Your task to perform on an android device: Show me the alarms in the clock app Image 0: 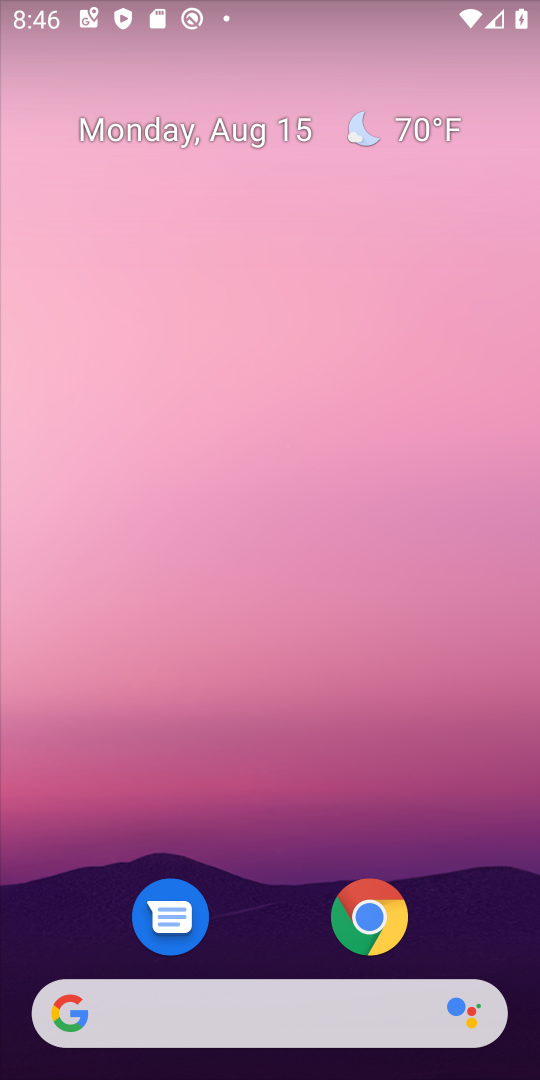
Step 0: drag from (276, 862) to (300, 55)
Your task to perform on an android device: Show me the alarms in the clock app Image 1: 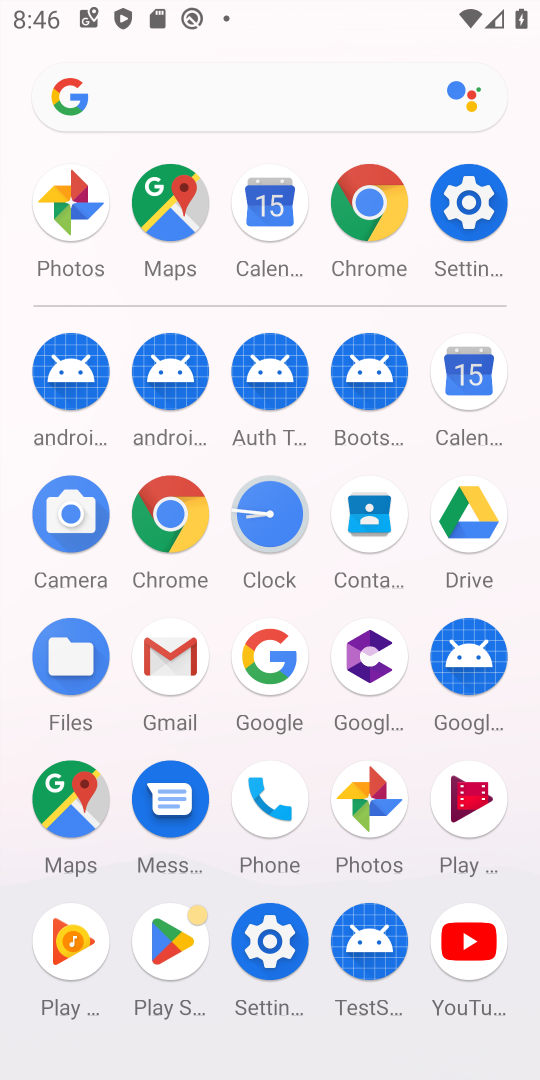
Step 1: click (266, 496)
Your task to perform on an android device: Show me the alarms in the clock app Image 2: 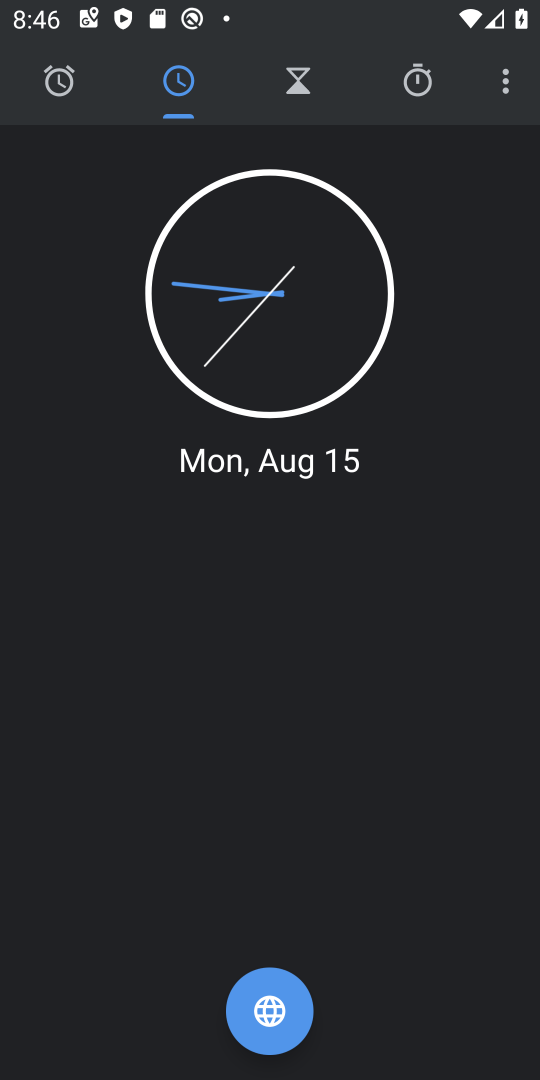
Step 2: click (54, 81)
Your task to perform on an android device: Show me the alarms in the clock app Image 3: 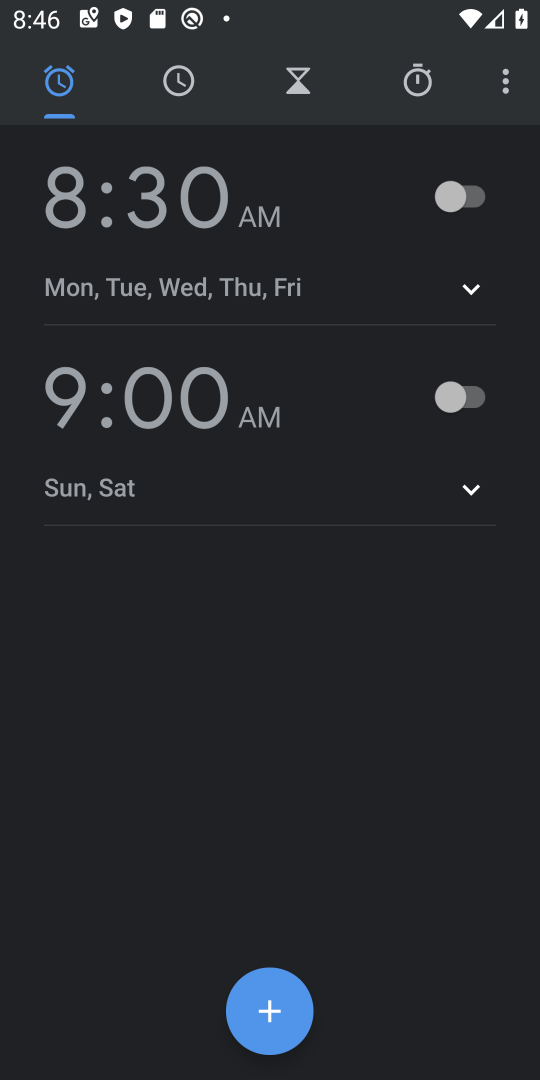
Step 3: task complete